Your task to perform on an android device: View the shopping cart on newegg. Search for razer thresher on newegg, select the first entry, and add it to the cart. Image 0: 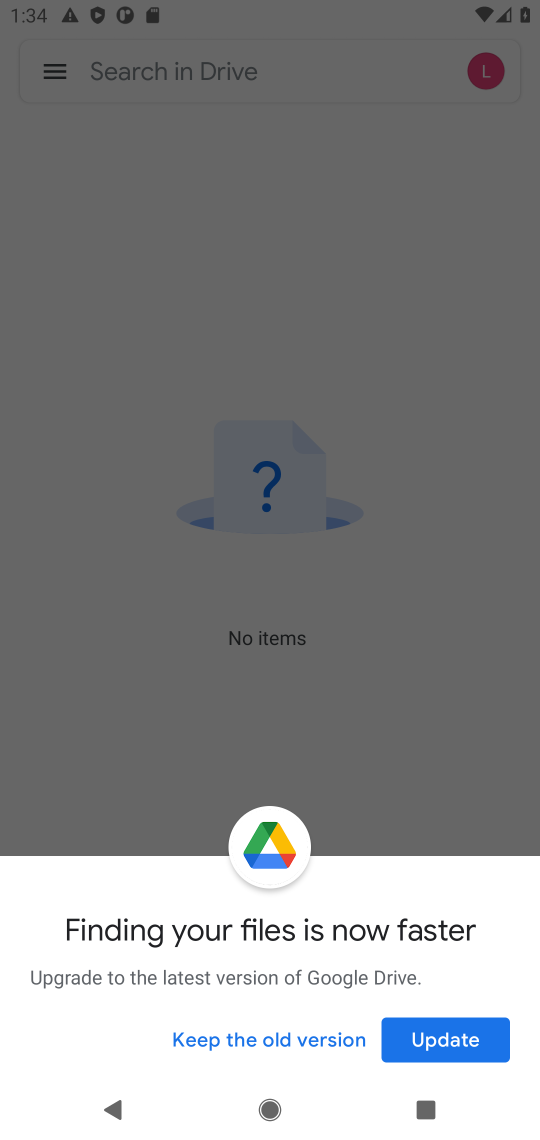
Step 0: press home button
Your task to perform on an android device: View the shopping cart on newegg. Search for razer thresher on newegg, select the first entry, and add it to the cart. Image 1: 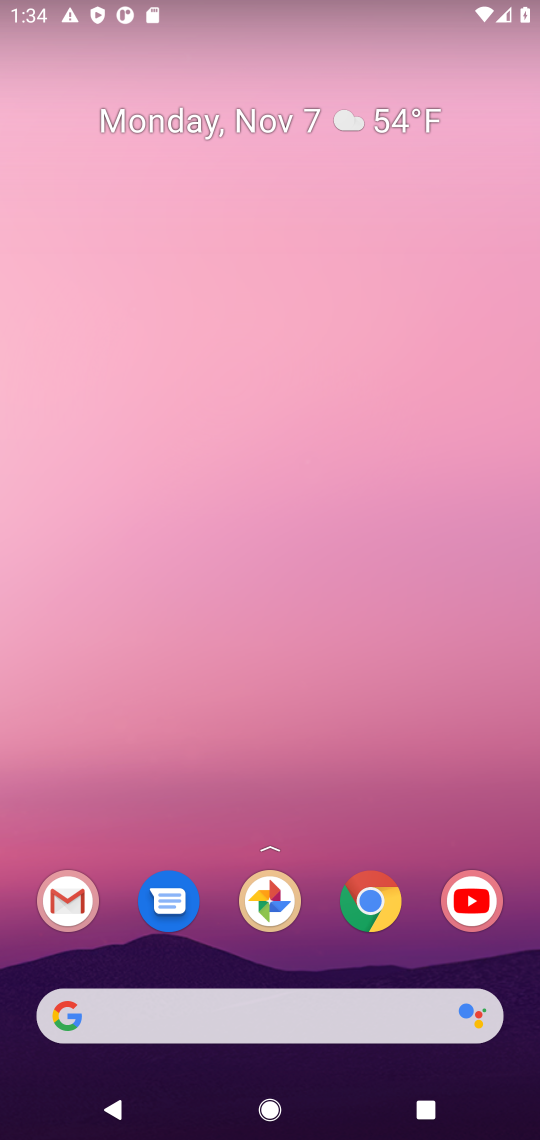
Step 1: click (371, 907)
Your task to perform on an android device: View the shopping cart on newegg. Search for razer thresher on newegg, select the first entry, and add it to the cart. Image 2: 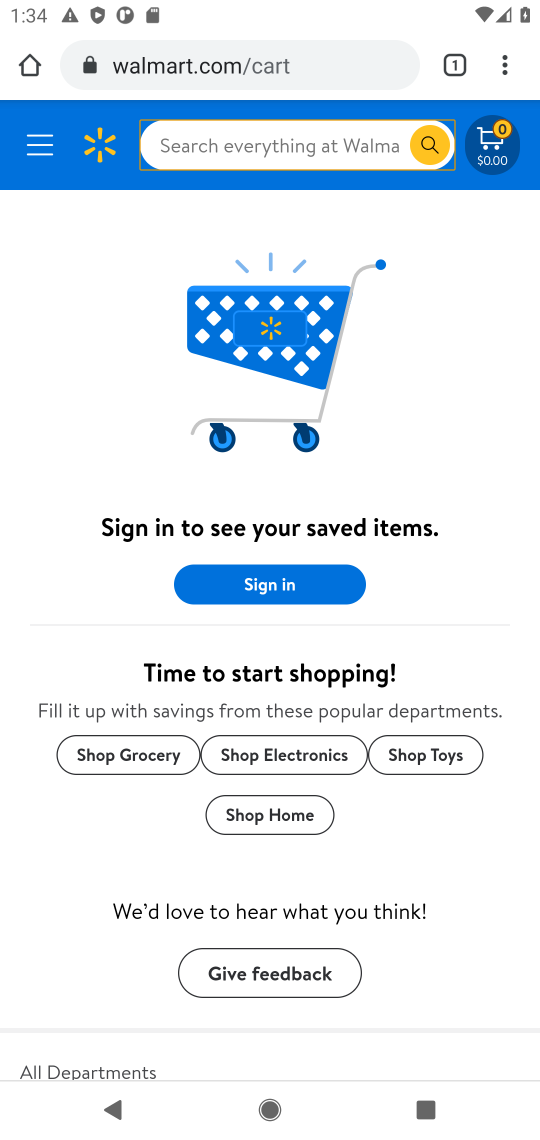
Step 2: click (178, 141)
Your task to perform on an android device: View the shopping cart on newegg. Search for razer thresher on newegg, select the first entry, and add it to the cart. Image 3: 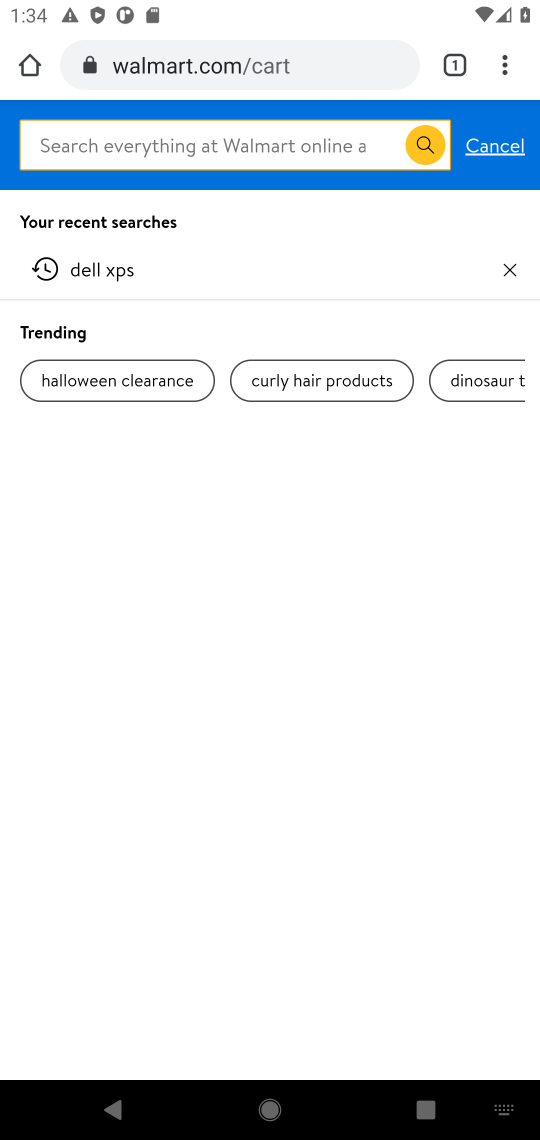
Step 3: click (186, 80)
Your task to perform on an android device: View the shopping cart on newegg. Search for razer thresher on newegg, select the first entry, and add it to the cart. Image 4: 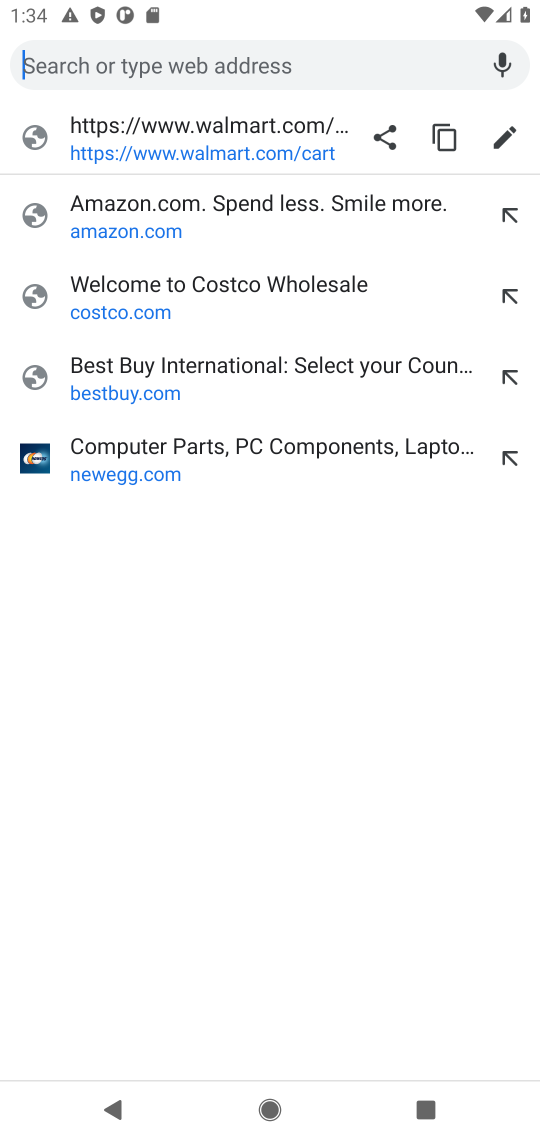
Step 4: click (109, 478)
Your task to perform on an android device: View the shopping cart on newegg. Search for razer thresher on newegg, select the first entry, and add it to the cart. Image 5: 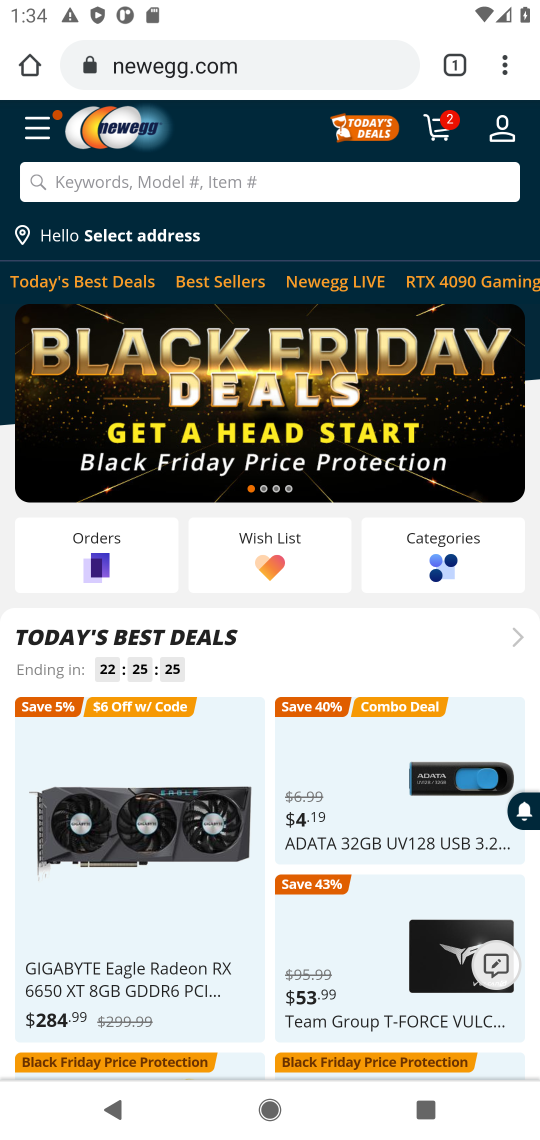
Step 5: click (436, 124)
Your task to perform on an android device: View the shopping cart on newegg. Search for razer thresher on newegg, select the first entry, and add it to the cart. Image 6: 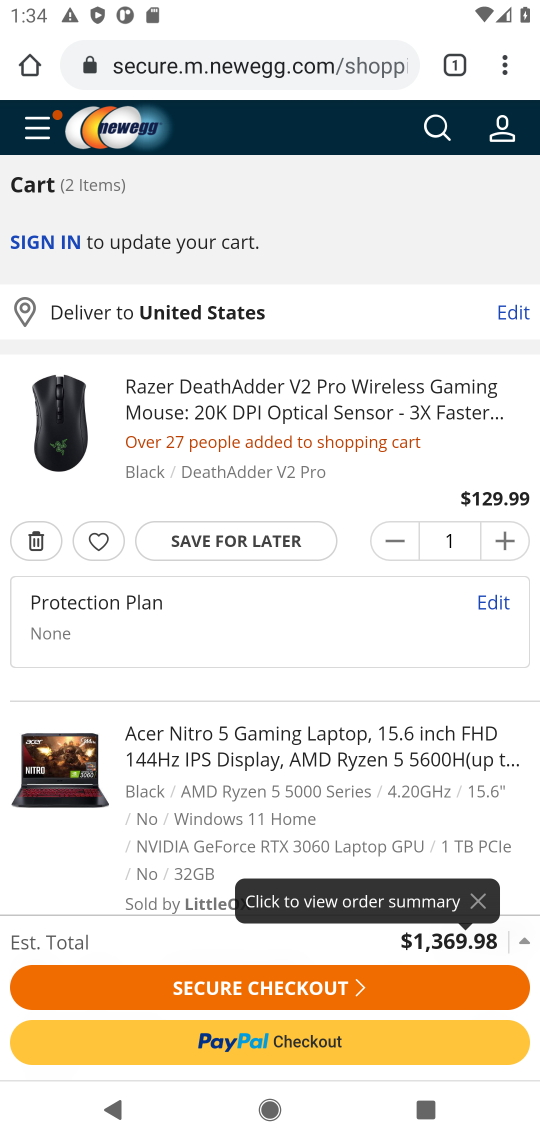
Step 6: click (441, 123)
Your task to perform on an android device: View the shopping cart on newegg. Search for razer thresher on newegg, select the first entry, and add it to the cart. Image 7: 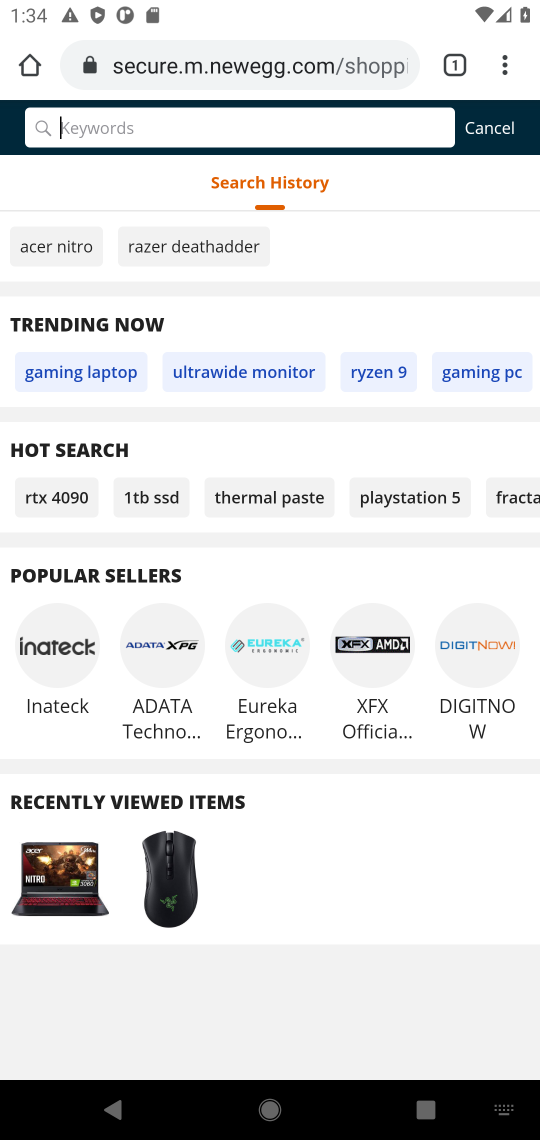
Step 7: type " razer thresher"
Your task to perform on an android device: View the shopping cart on newegg. Search for razer thresher on newegg, select the first entry, and add it to the cart. Image 8: 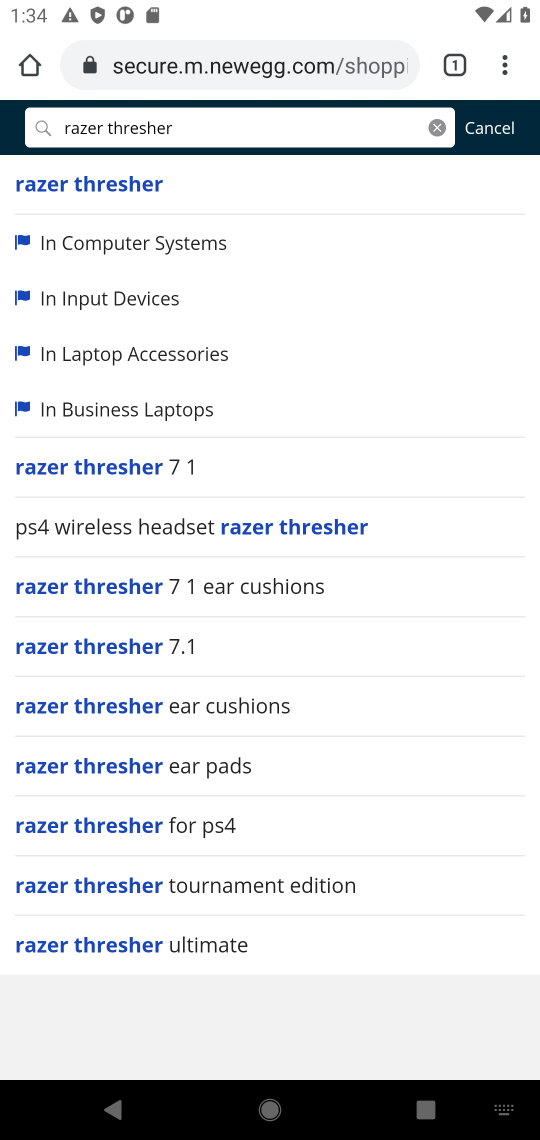
Step 8: click (128, 180)
Your task to perform on an android device: View the shopping cart on newegg. Search for razer thresher on newegg, select the first entry, and add it to the cart. Image 9: 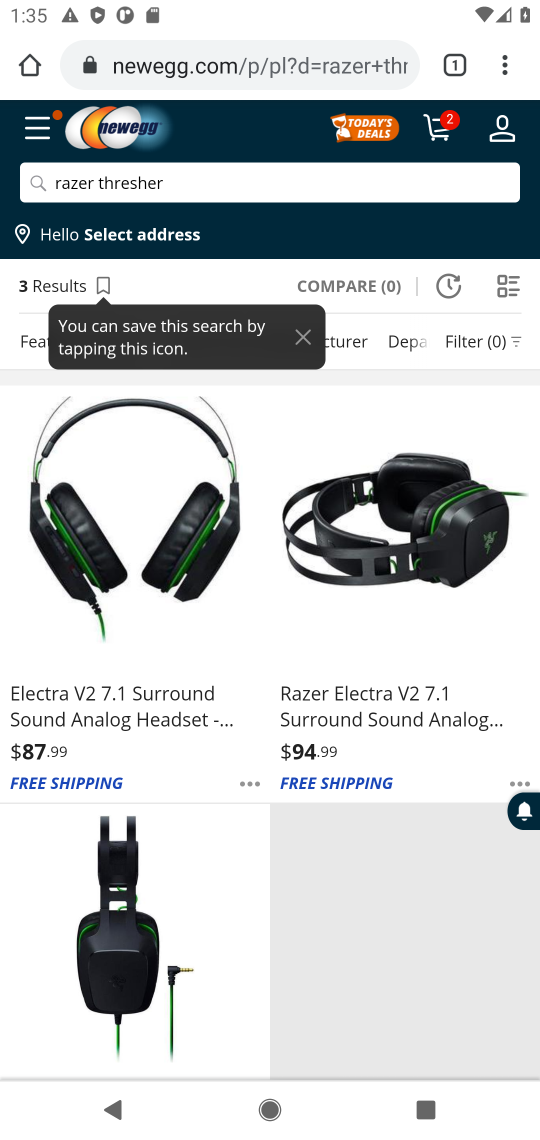
Step 9: task complete